Your task to perform on an android device: change text size in settings app Image 0: 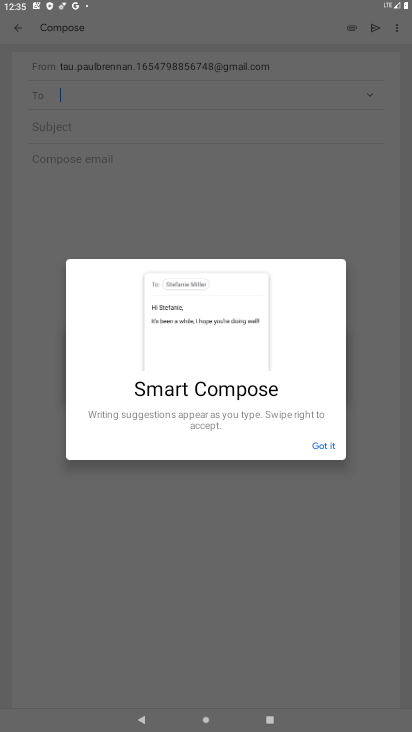
Step 0: press home button
Your task to perform on an android device: change text size in settings app Image 1: 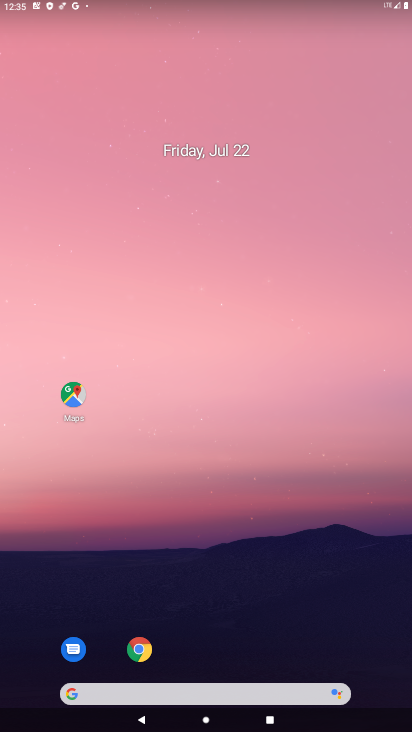
Step 1: drag from (238, 720) to (222, 438)
Your task to perform on an android device: change text size in settings app Image 2: 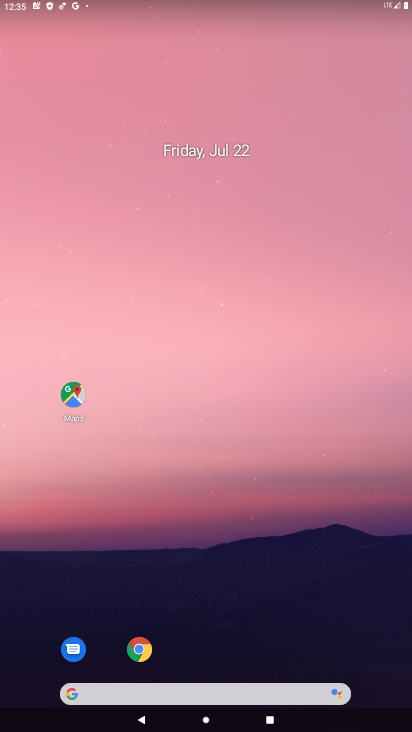
Step 2: drag from (224, 689) to (199, 50)
Your task to perform on an android device: change text size in settings app Image 3: 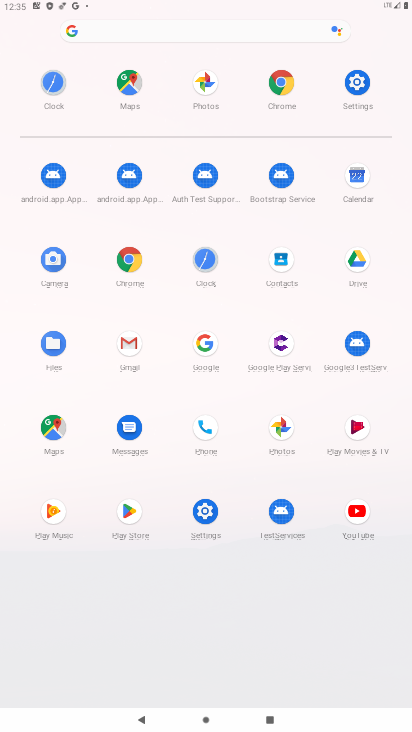
Step 3: click (205, 508)
Your task to perform on an android device: change text size in settings app Image 4: 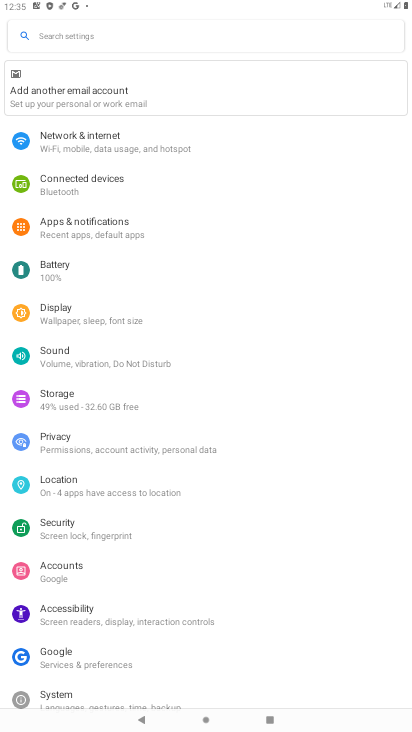
Step 4: click (94, 314)
Your task to perform on an android device: change text size in settings app Image 5: 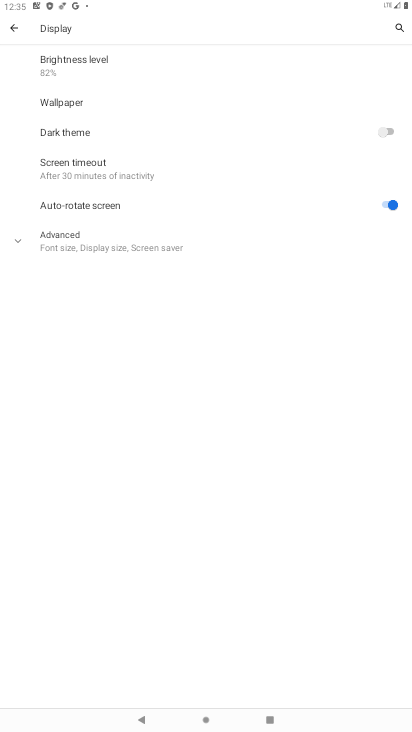
Step 5: click (76, 244)
Your task to perform on an android device: change text size in settings app Image 6: 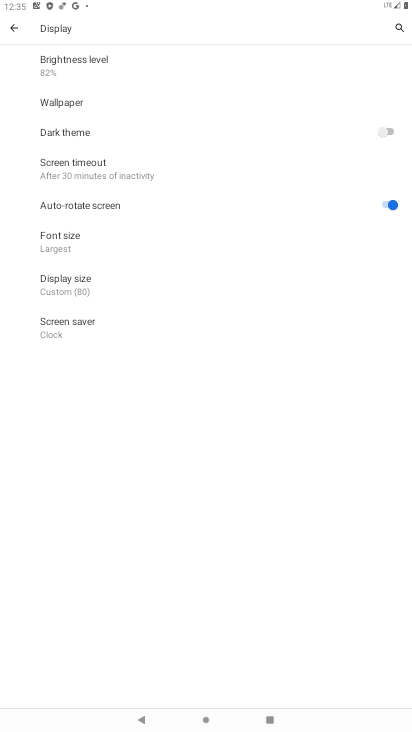
Step 6: click (63, 244)
Your task to perform on an android device: change text size in settings app Image 7: 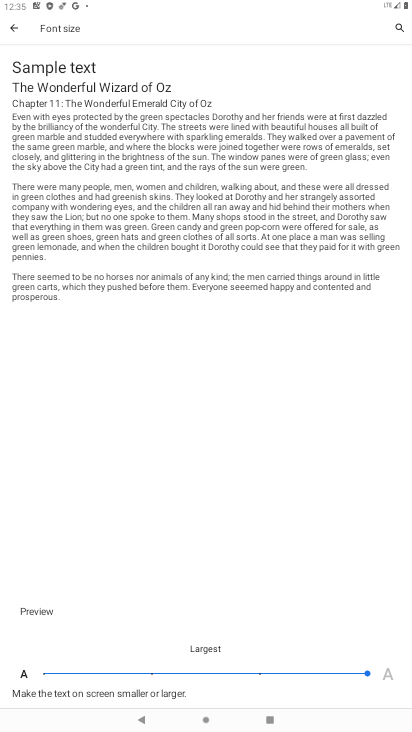
Step 7: click (302, 673)
Your task to perform on an android device: change text size in settings app Image 8: 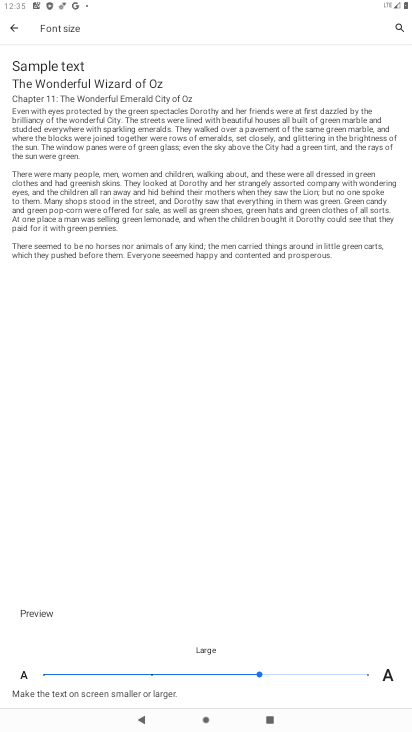
Step 8: task complete